Your task to perform on an android device: turn on location history Image 0: 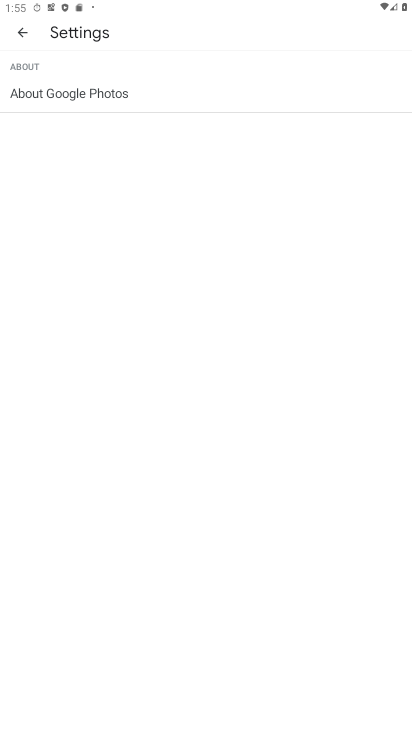
Step 0: press home button
Your task to perform on an android device: turn on location history Image 1: 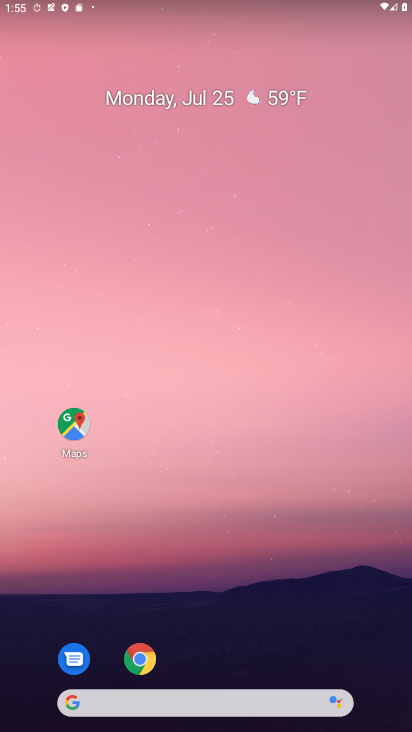
Step 1: click (63, 436)
Your task to perform on an android device: turn on location history Image 2: 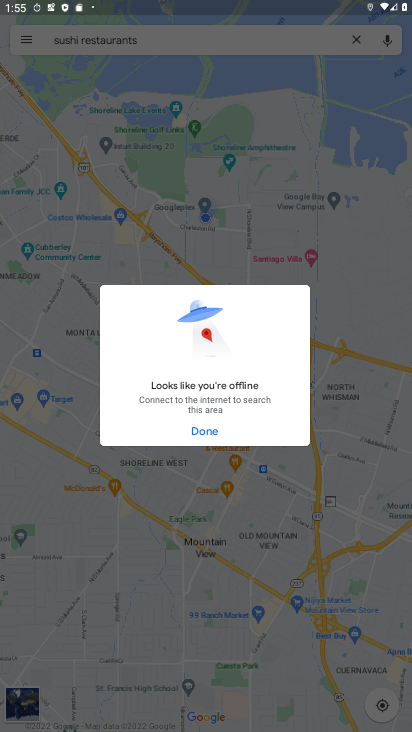
Step 2: click (221, 435)
Your task to perform on an android device: turn on location history Image 3: 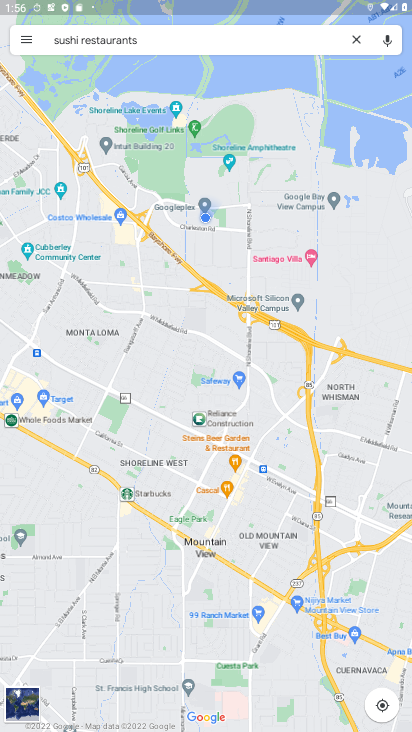
Step 3: click (32, 39)
Your task to perform on an android device: turn on location history Image 4: 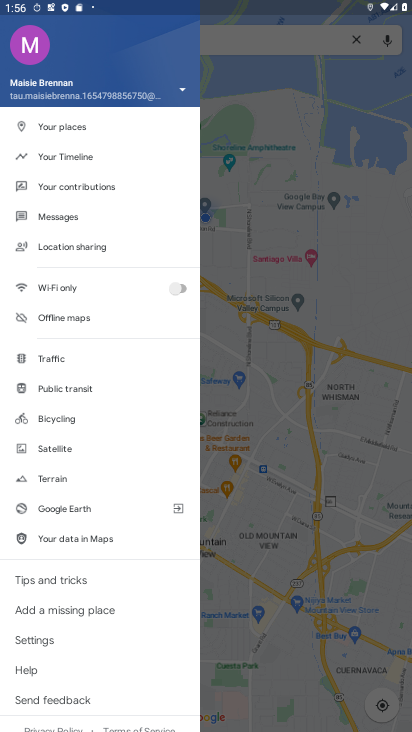
Step 4: click (54, 160)
Your task to perform on an android device: turn on location history Image 5: 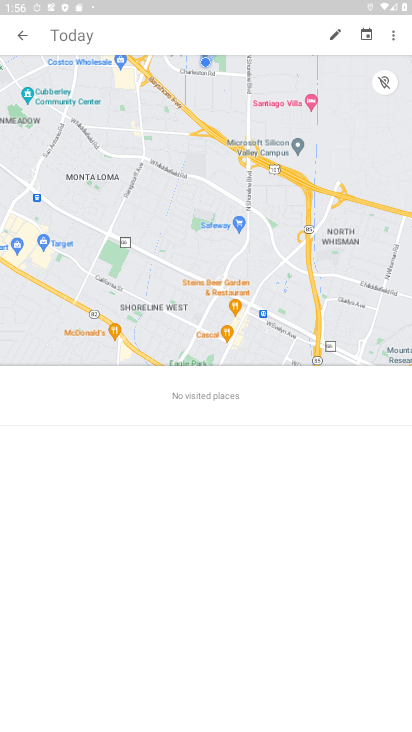
Step 5: click (398, 34)
Your task to perform on an android device: turn on location history Image 6: 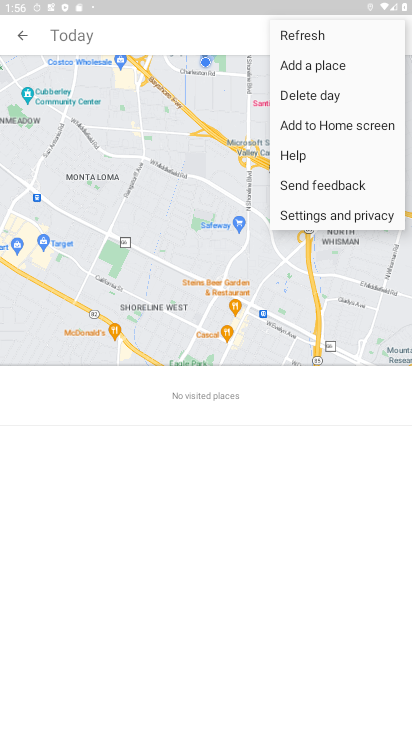
Step 6: click (322, 213)
Your task to perform on an android device: turn on location history Image 7: 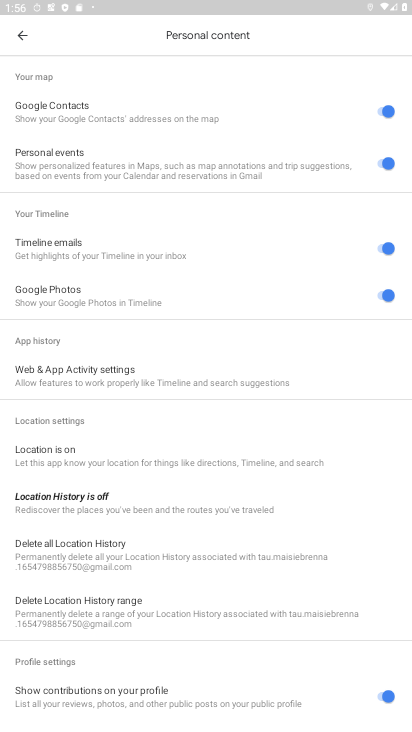
Step 7: click (84, 501)
Your task to perform on an android device: turn on location history Image 8: 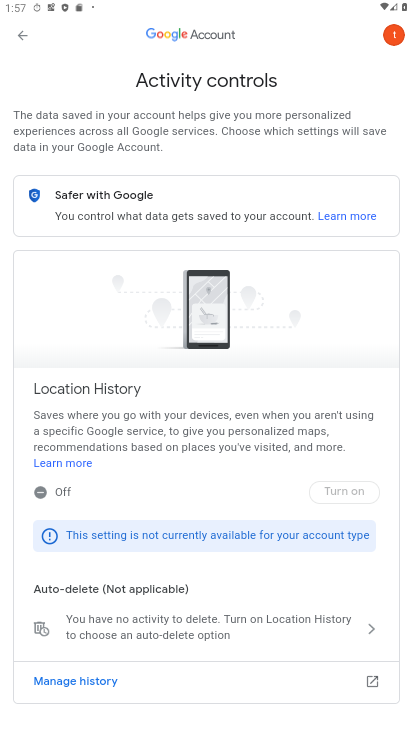
Step 8: click (364, 486)
Your task to perform on an android device: turn on location history Image 9: 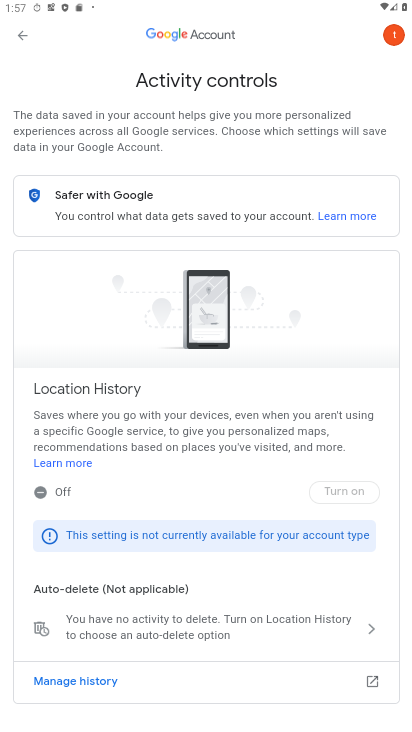
Step 9: task complete